Your task to perform on an android device: Open Google Chrome and open the bookmarks view Image 0: 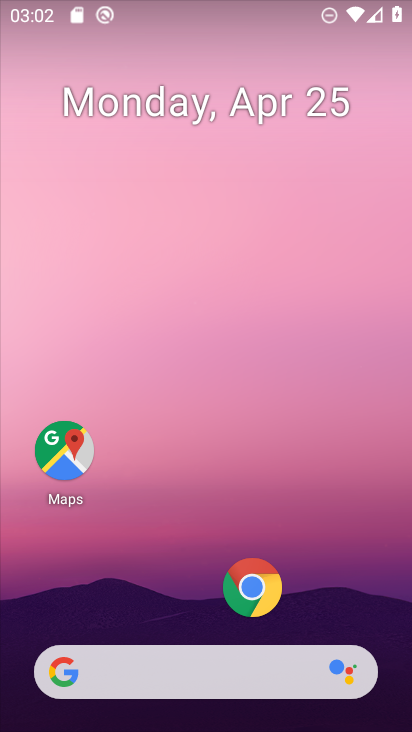
Step 0: drag from (204, 117) to (204, 13)
Your task to perform on an android device: Open Google Chrome and open the bookmarks view Image 1: 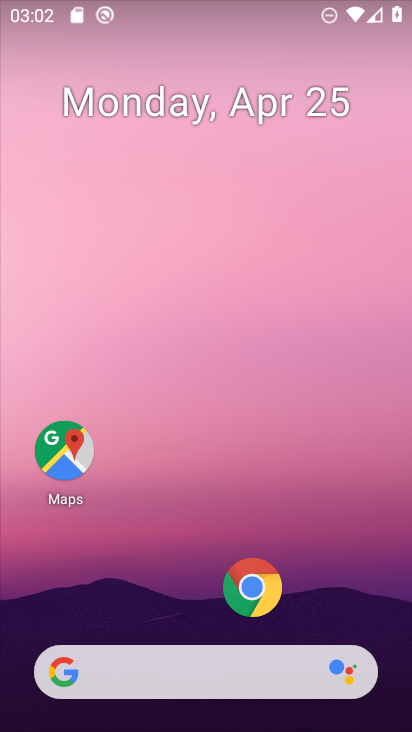
Step 1: click (249, 582)
Your task to perform on an android device: Open Google Chrome and open the bookmarks view Image 2: 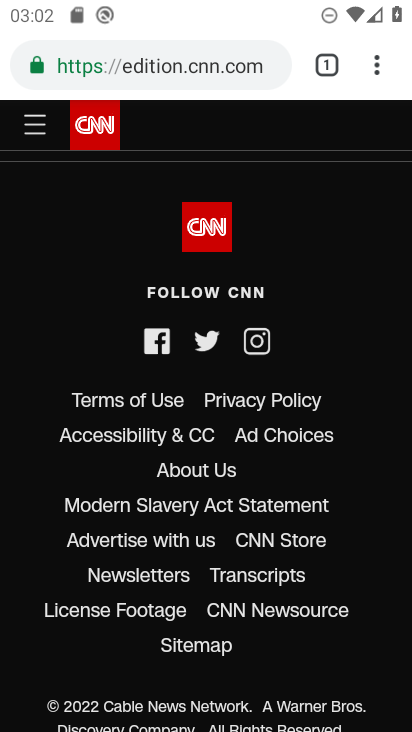
Step 2: drag from (299, 199) to (265, 724)
Your task to perform on an android device: Open Google Chrome and open the bookmarks view Image 3: 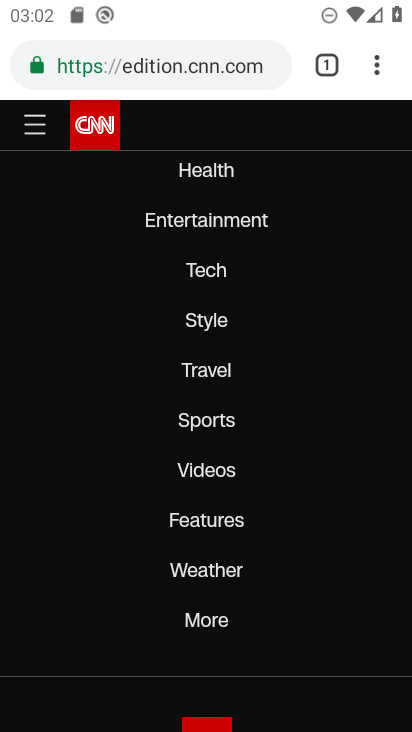
Step 3: drag from (300, 236) to (297, 727)
Your task to perform on an android device: Open Google Chrome and open the bookmarks view Image 4: 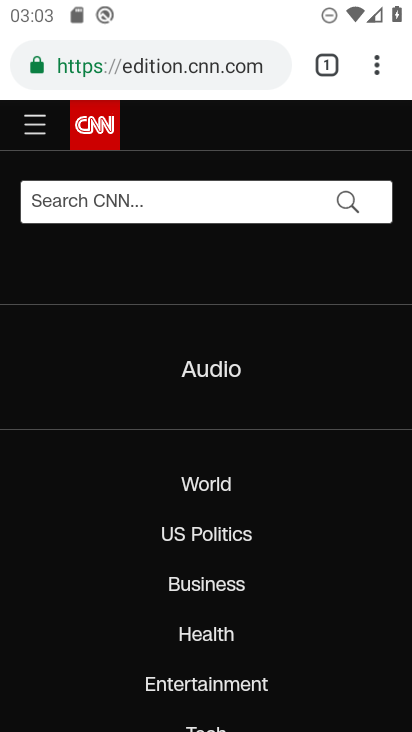
Step 4: click (376, 67)
Your task to perform on an android device: Open Google Chrome and open the bookmarks view Image 5: 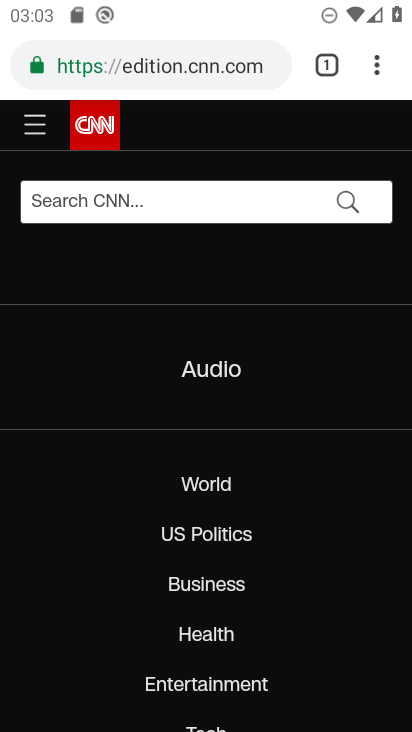
Step 5: click (380, 64)
Your task to perform on an android device: Open Google Chrome and open the bookmarks view Image 6: 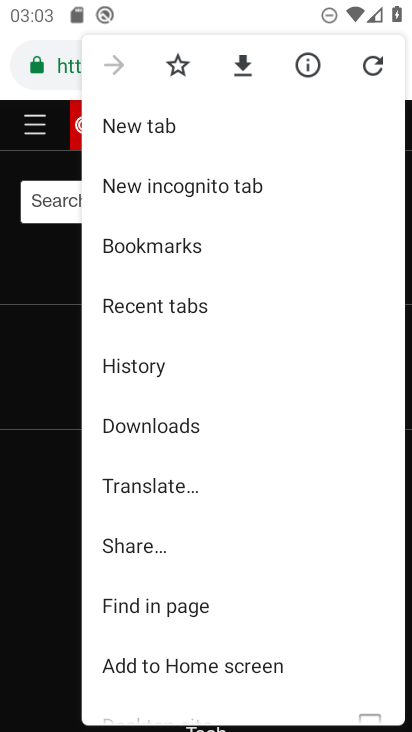
Step 6: click (212, 237)
Your task to perform on an android device: Open Google Chrome and open the bookmarks view Image 7: 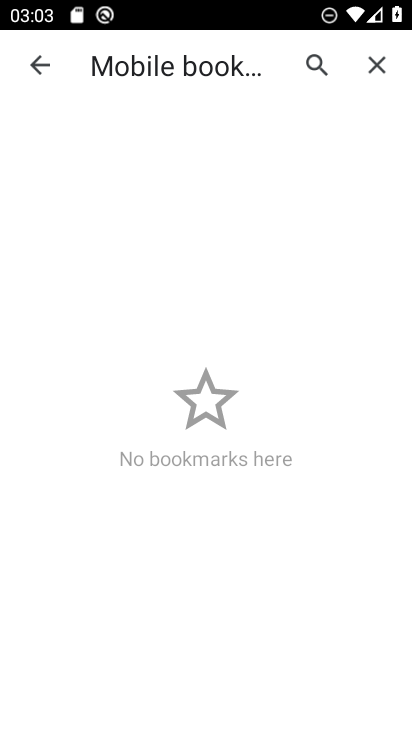
Step 7: task complete